Your task to perform on an android device: install app "Google Chrome" Image 0: 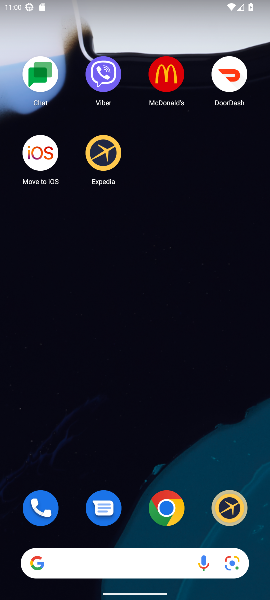
Step 0: drag from (147, 566) to (194, 69)
Your task to perform on an android device: install app "Google Chrome" Image 1: 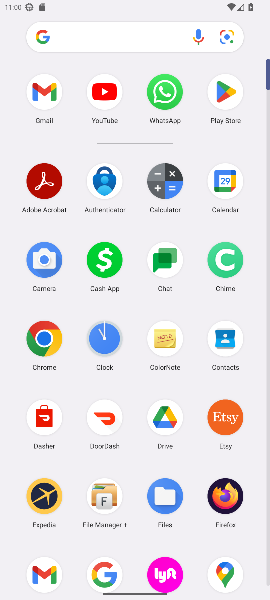
Step 1: drag from (139, 455) to (159, 198)
Your task to perform on an android device: install app "Google Chrome" Image 2: 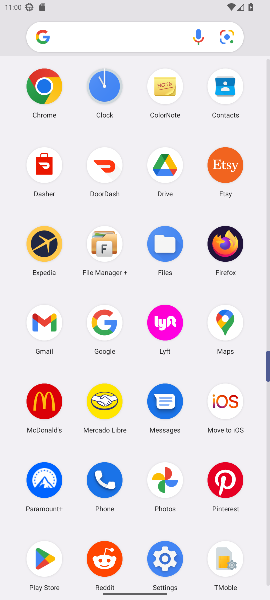
Step 2: drag from (141, 255) to (130, 557)
Your task to perform on an android device: install app "Google Chrome" Image 3: 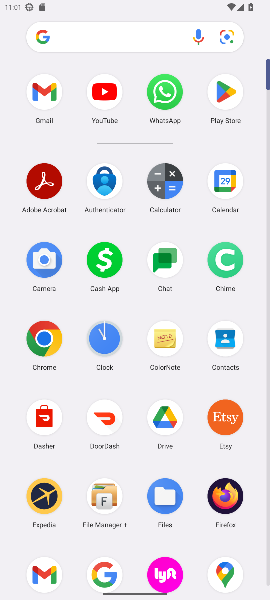
Step 3: click (224, 100)
Your task to perform on an android device: install app "Google Chrome" Image 4: 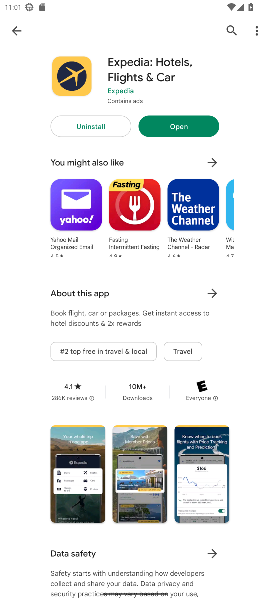
Step 4: click (232, 25)
Your task to perform on an android device: install app "Google Chrome" Image 5: 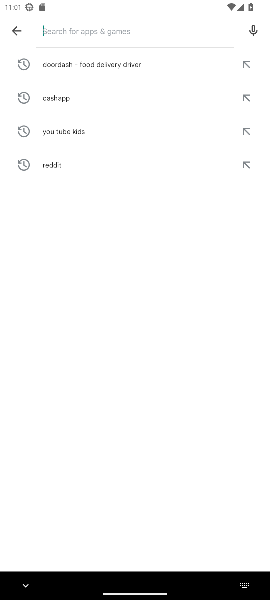
Step 5: type "google chrome"
Your task to perform on an android device: install app "Google Chrome" Image 6: 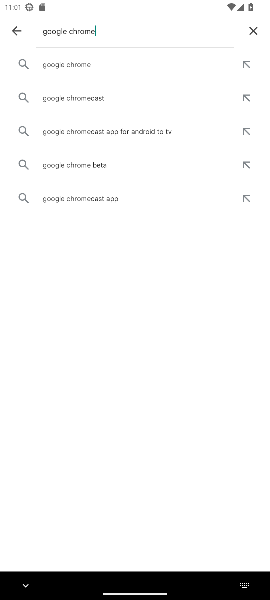
Step 6: click (95, 58)
Your task to perform on an android device: install app "Google Chrome" Image 7: 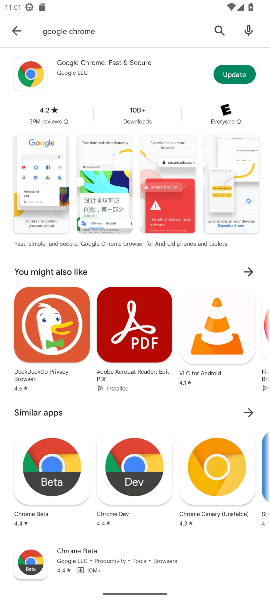
Step 7: task complete